Your task to perform on an android device: turn on priority inbox in the gmail app Image 0: 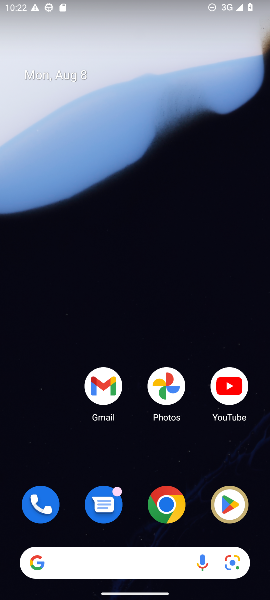
Step 0: click (111, 397)
Your task to perform on an android device: turn on priority inbox in the gmail app Image 1: 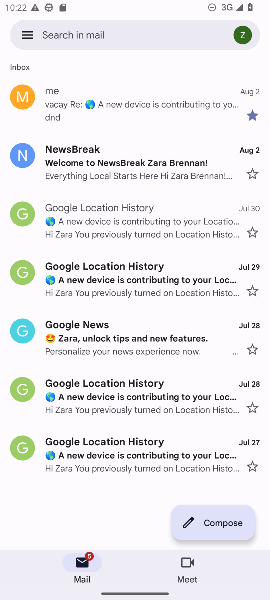
Step 1: click (30, 36)
Your task to perform on an android device: turn on priority inbox in the gmail app Image 2: 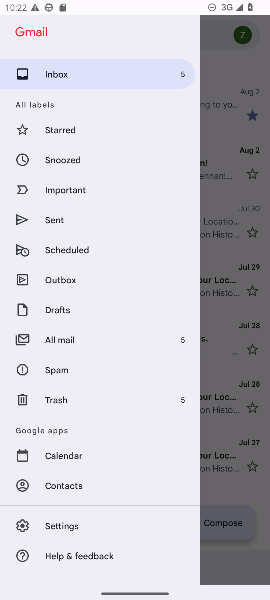
Step 2: click (67, 529)
Your task to perform on an android device: turn on priority inbox in the gmail app Image 3: 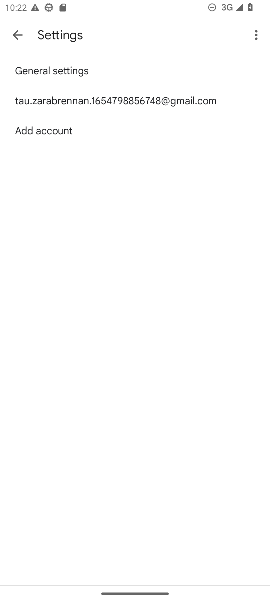
Step 3: click (76, 104)
Your task to perform on an android device: turn on priority inbox in the gmail app Image 4: 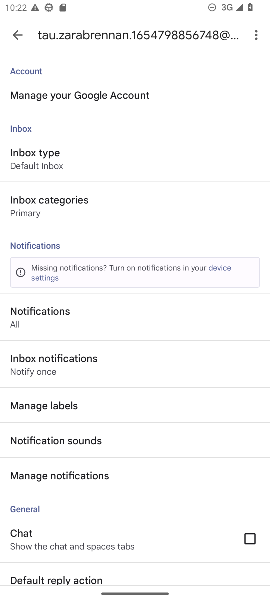
Step 4: click (56, 164)
Your task to perform on an android device: turn on priority inbox in the gmail app Image 5: 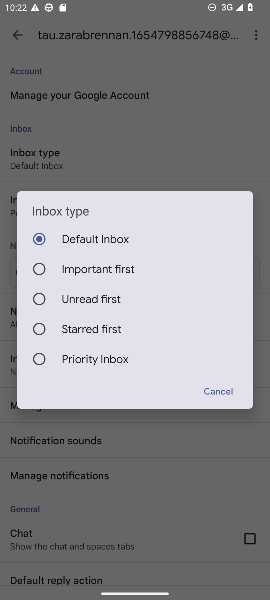
Step 5: click (71, 365)
Your task to perform on an android device: turn on priority inbox in the gmail app Image 6: 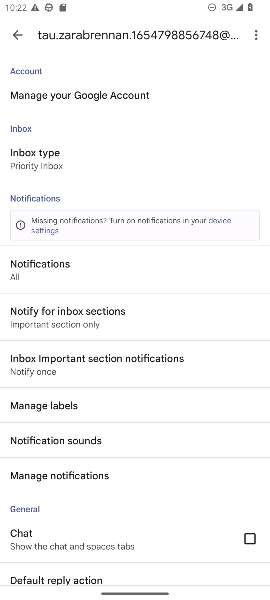
Step 6: task complete